Your task to perform on an android device: Open Google Chrome and open the bookmarks view Image 0: 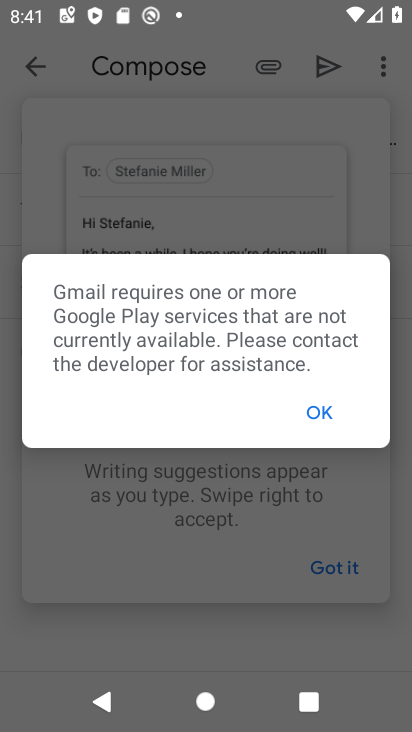
Step 0: press home button
Your task to perform on an android device: Open Google Chrome and open the bookmarks view Image 1: 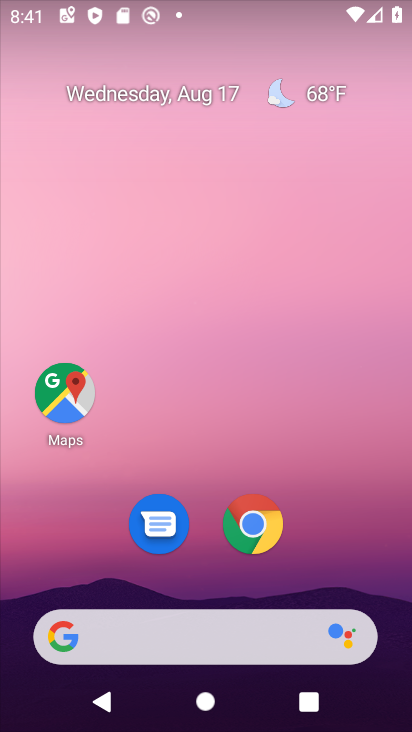
Step 1: click (252, 518)
Your task to perform on an android device: Open Google Chrome and open the bookmarks view Image 2: 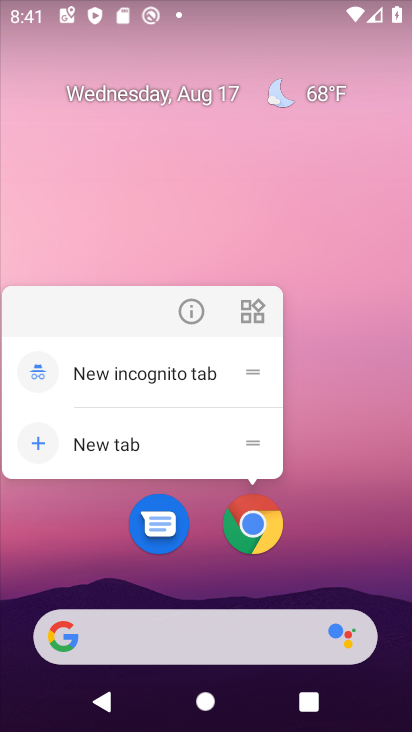
Step 2: click (252, 518)
Your task to perform on an android device: Open Google Chrome and open the bookmarks view Image 3: 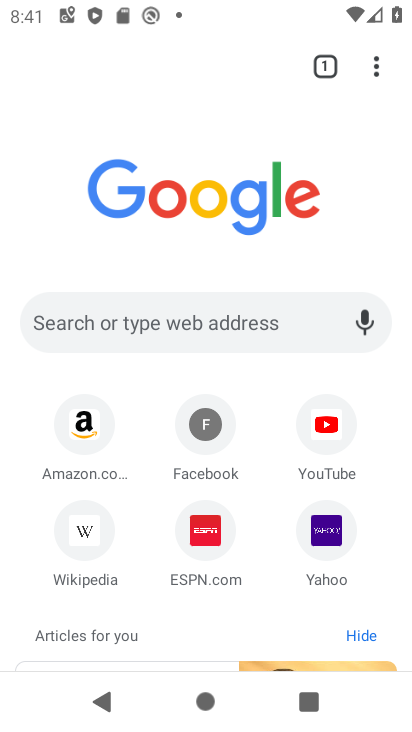
Step 3: click (370, 75)
Your task to perform on an android device: Open Google Chrome and open the bookmarks view Image 4: 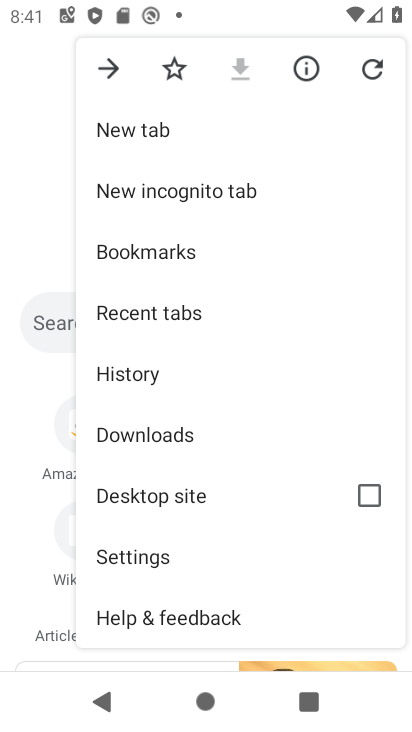
Step 4: click (191, 252)
Your task to perform on an android device: Open Google Chrome and open the bookmarks view Image 5: 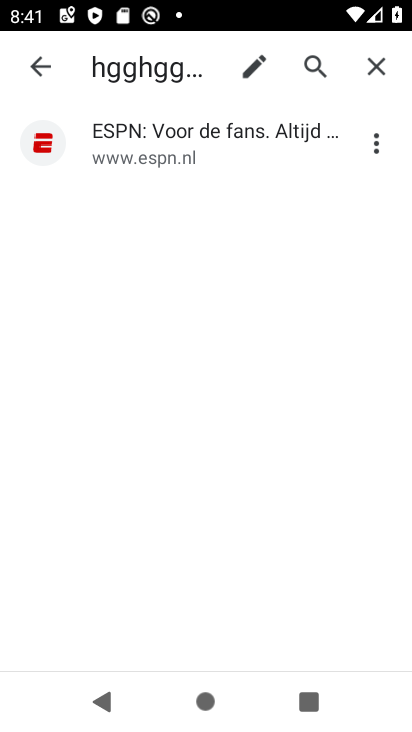
Step 5: task complete